Your task to perform on an android device: Go to CNN.com Image 0: 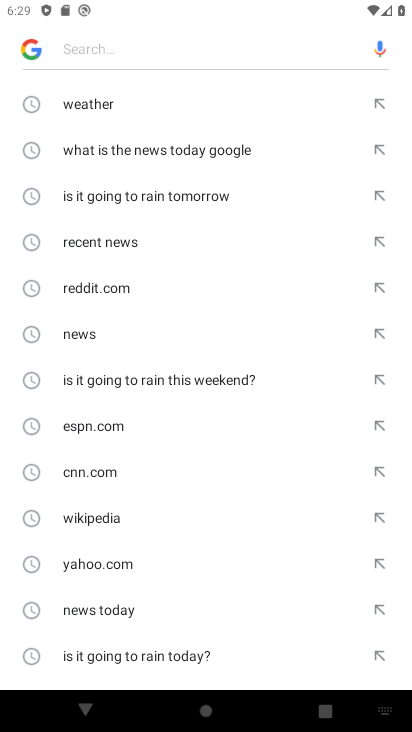
Step 0: press home button
Your task to perform on an android device: Go to CNN.com Image 1: 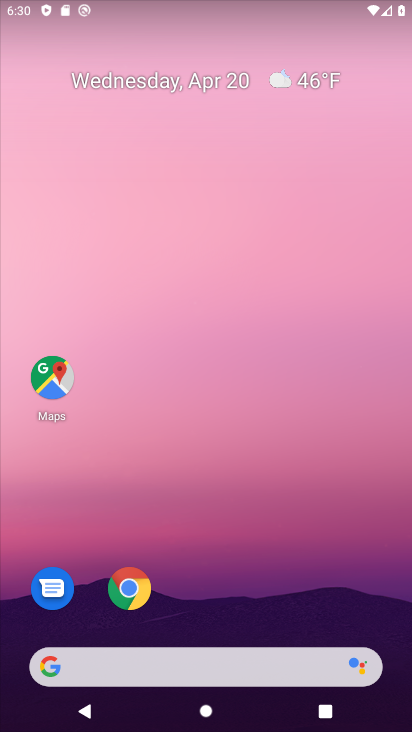
Step 1: click (126, 586)
Your task to perform on an android device: Go to CNN.com Image 2: 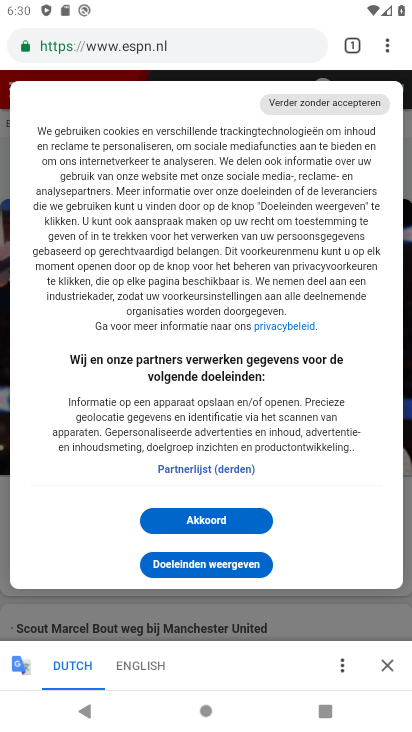
Step 2: click (208, 48)
Your task to perform on an android device: Go to CNN.com Image 3: 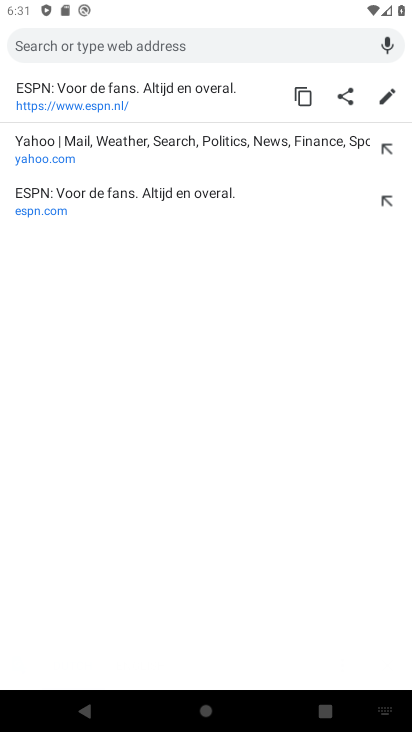
Step 3: type "CNN.com"
Your task to perform on an android device: Go to CNN.com Image 4: 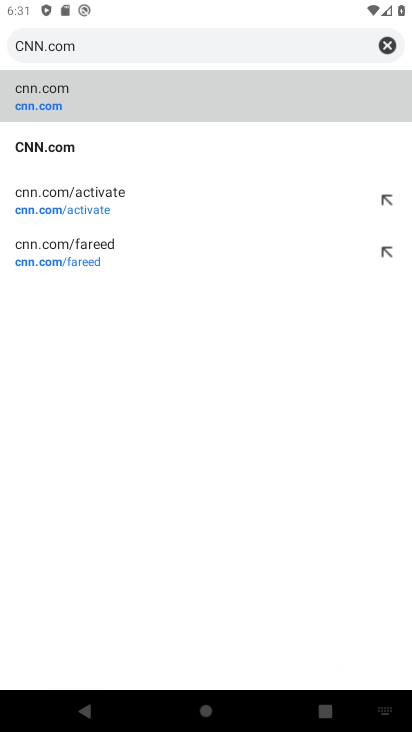
Step 4: click (142, 96)
Your task to perform on an android device: Go to CNN.com Image 5: 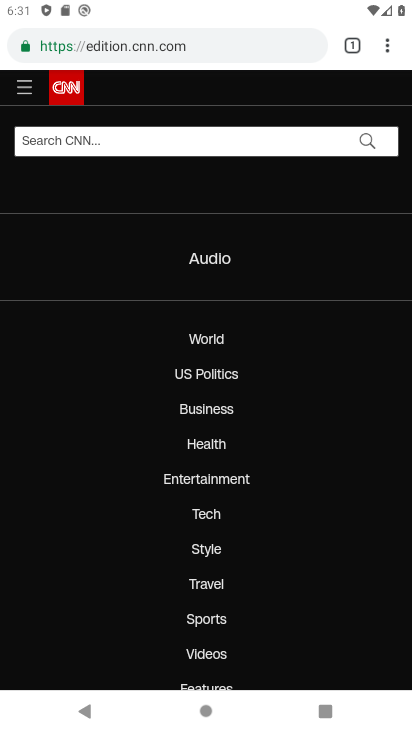
Step 5: task complete